Your task to perform on an android device: allow cookies in the chrome app Image 0: 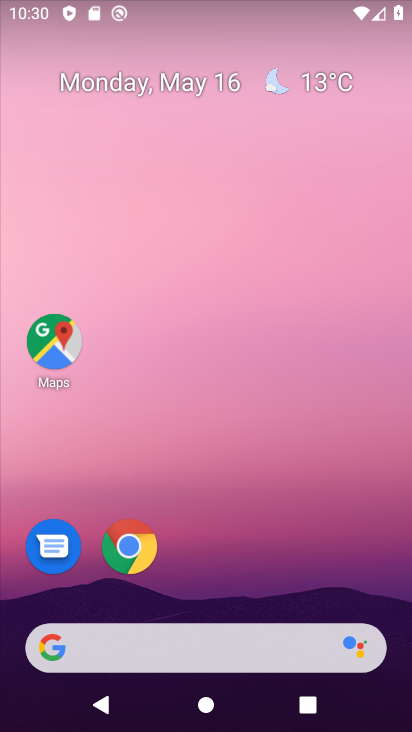
Step 0: drag from (289, 571) to (371, 58)
Your task to perform on an android device: allow cookies in the chrome app Image 1: 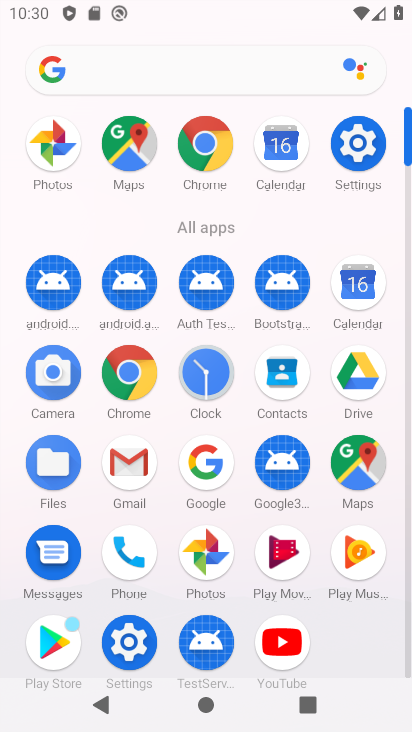
Step 1: click (211, 159)
Your task to perform on an android device: allow cookies in the chrome app Image 2: 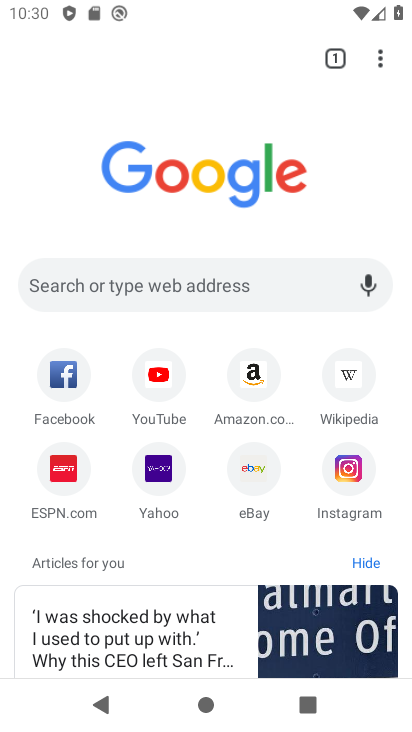
Step 2: drag from (380, 48) to (173, 498)
Your task to perform on an android device: allow cookies in the chrome app Image 3: 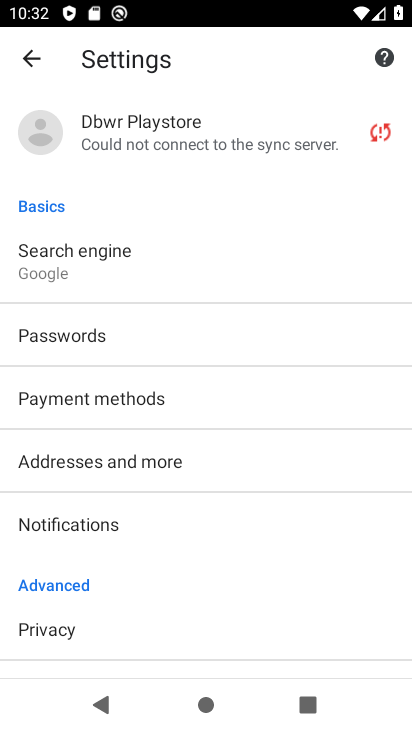
Step 3: drag from (127, 498) to (199, 199)
Your task to perform on an android device: allow cookies in the chrome app Image 4: 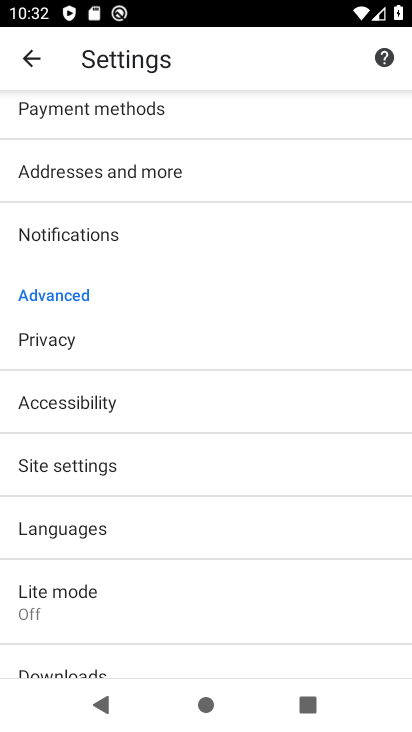
Step 4: click (87, 481)
Your task to perform on an android device: allow cookies in the chrome app Image 5: 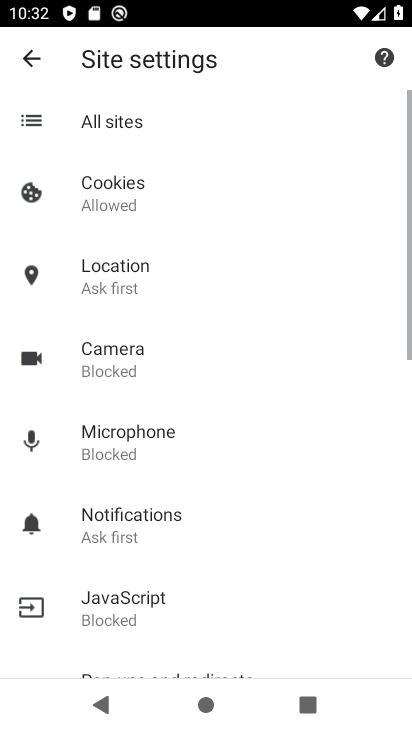
Step 5: click (137, 184)
Your task to perform on an android device: allow cookies in the chrome app Image 6: 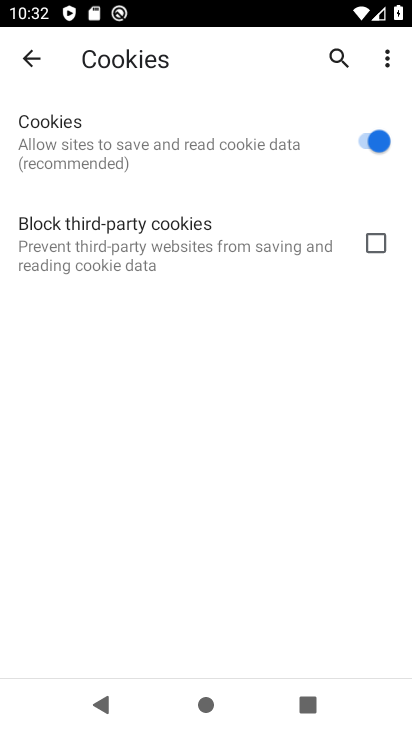
Step 6: task complete